Your task to perform on an android device: toggle pop-ups in chrome Image 0: 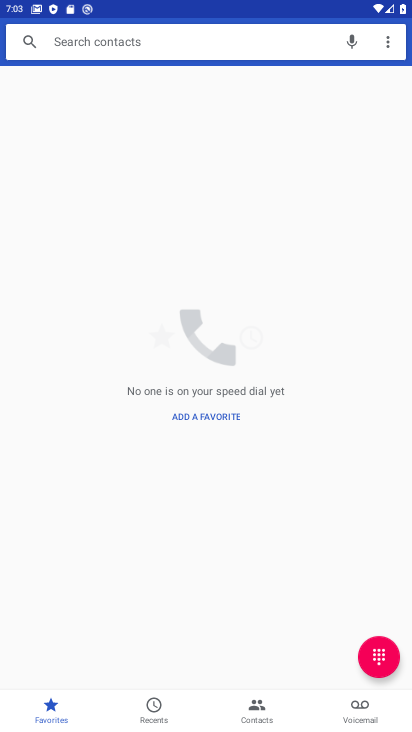
Step 0: press home button
Your task to perform on an android device: toggle pop-ups in chrome Image 1: 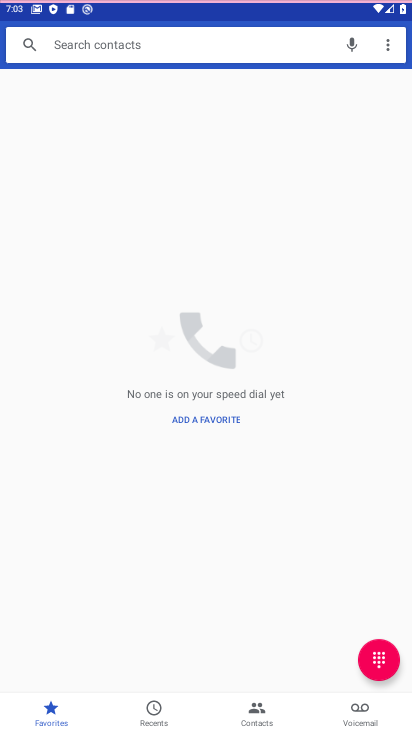
Step 1: drag from (342, 642) to (227, 33)
Your task to perform on an android device: toggle pop-ups in chrome Image 2: 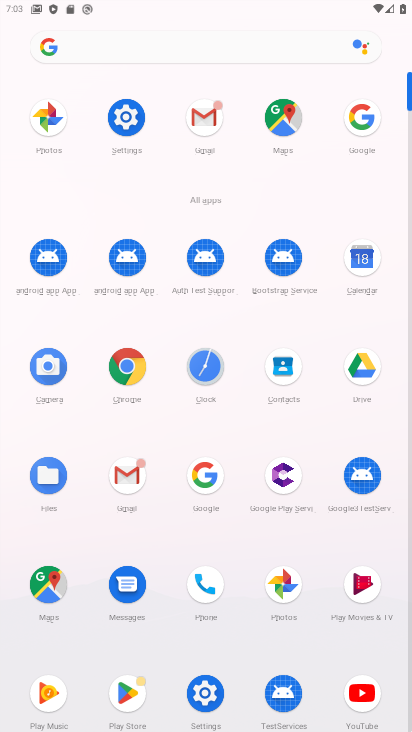
Step 2: click (132, 352)
Your task to perform on an android device: toggle pop-ups in chrome Image 3: 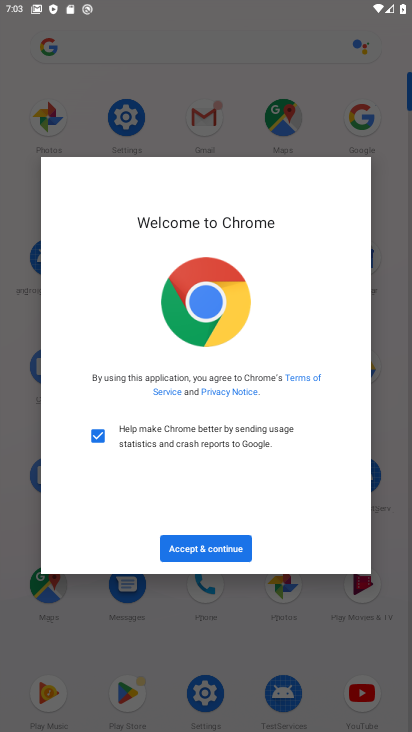
Step 3: click (207, 559)
Your task to perform on an android device: toggle pop-ups in chrome Image 4: 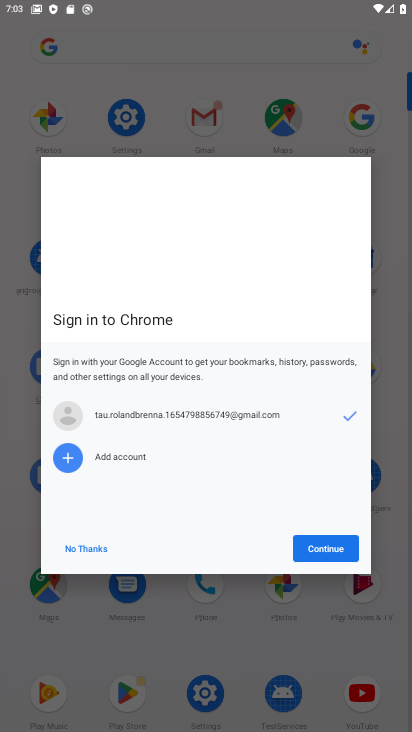
Step 4: click (306, 542)
Your task to perform on an android device: toggle pop-ups in chrome Image 5: 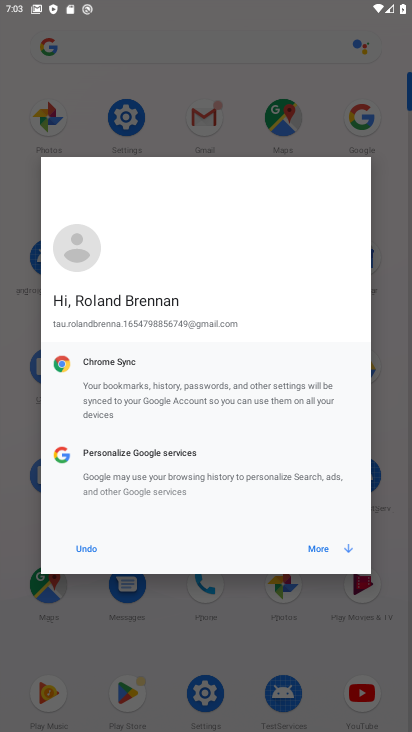
Step 5: click (319, 548)
Your task to perform on an android device: toggle pop-ups in chrome Image 6: 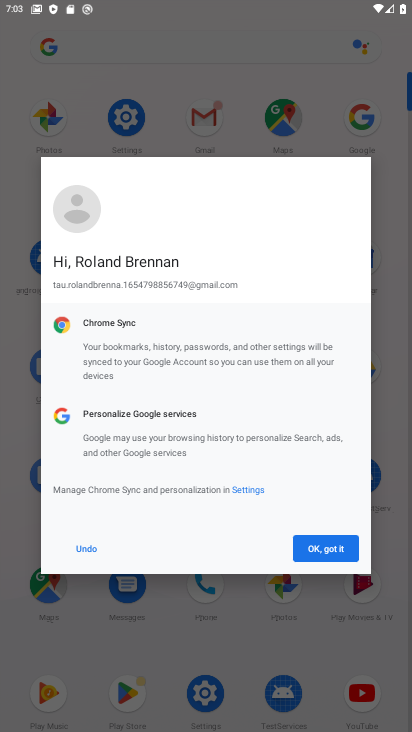
Step 6: click (319, 548)
Your task to perform on an android device: toggle pop-ups in chrome Image 7: 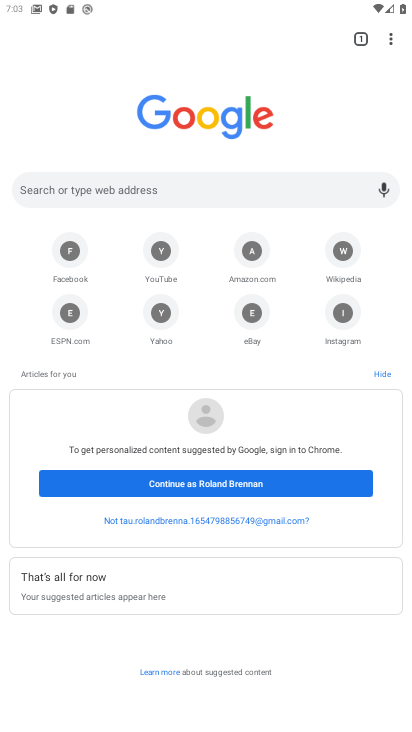
Step 7: click (388, 34)
Your task to perform on an android device: toggle pop-ups in chrome Image 8: 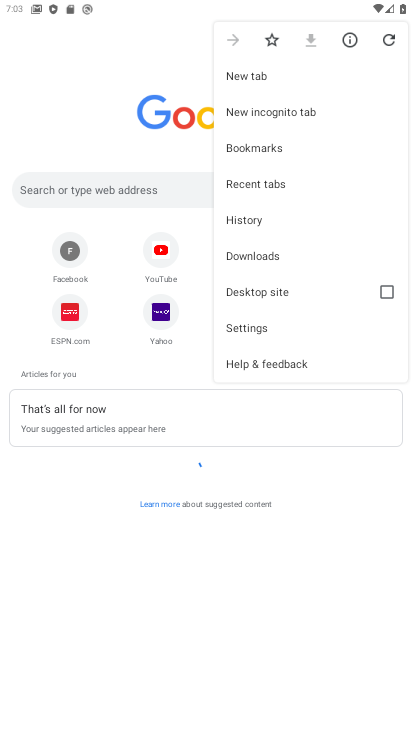
Step 8: click (257, 322)
Your task to perform on an android device: toggle pop-ups in chrome Image 9: 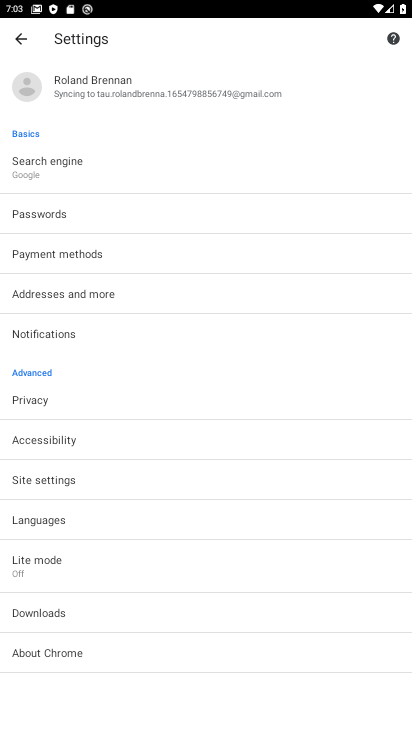
Step 9: click (63, 478)
Your task to perform on an android device: toggle pop-ups in chrome Image 10: 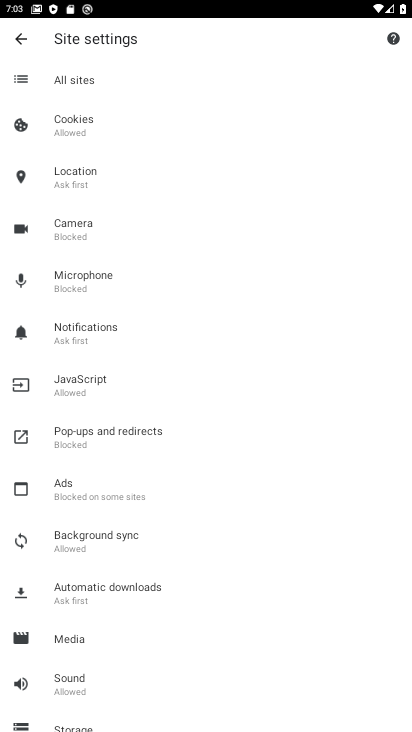
Step 10: click (93, 441)
Your task to perform on an android device: toggle pop-ups in chrome Image 11: 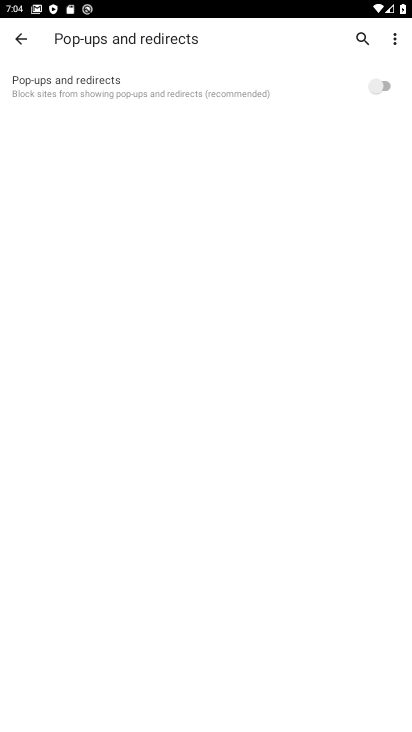
Step 11: click (387, 82)
Your task to perform on an android device: toggle pop-ups in chrome Image 12: 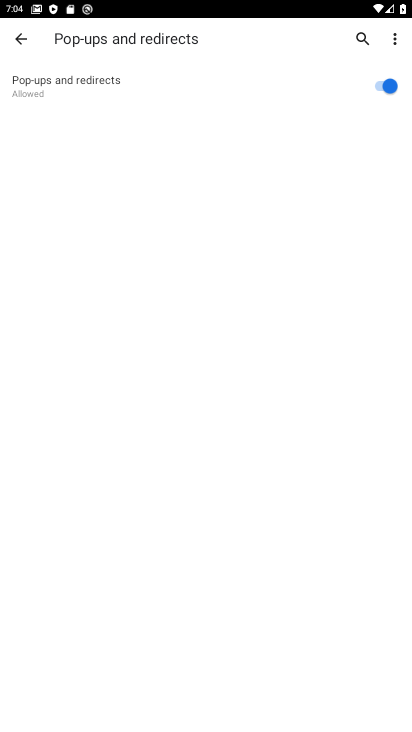
Step 12: task complete